Your task to perform on an android device: What's the weather going to be this weekend? Image 0: 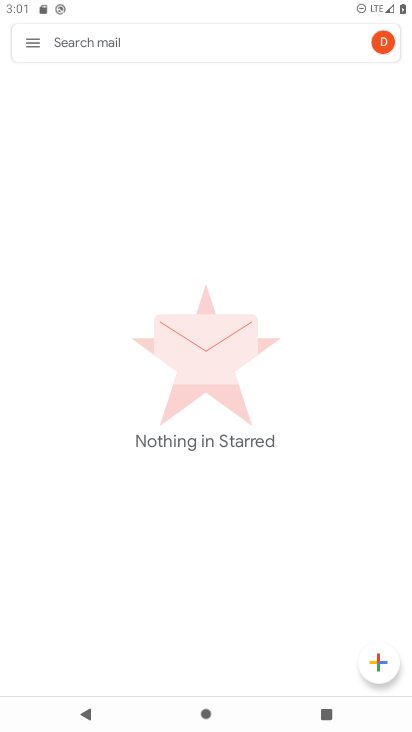
Step 0: press home button
Your task to perform on an android device: What's the weather going to be this weekend? Image 1: 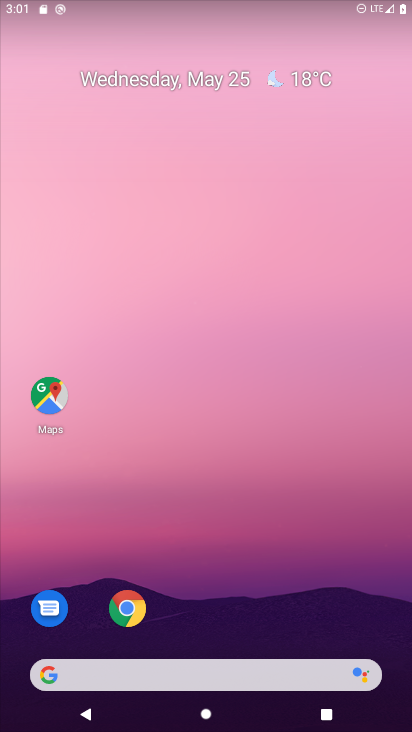
Step 1: click (294, 82)
Your task to perform on an android device: What's the weather going to be this weekend? Image 2: 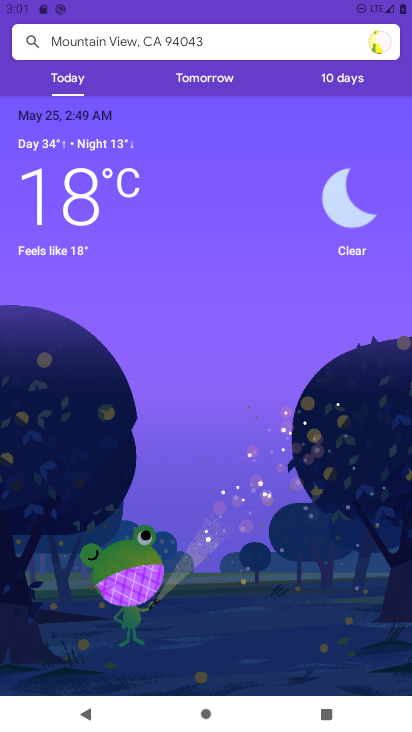
Step 2: click (342, 79)
Your task to perform on an android device: What's the weather going to be this weekend? Image 3: 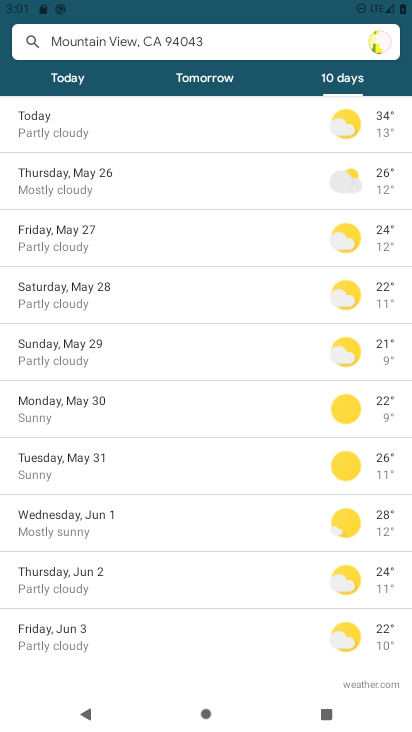
Step 3: task complete